Your task to perform on an android device: find photos in the google photos app Image 0: 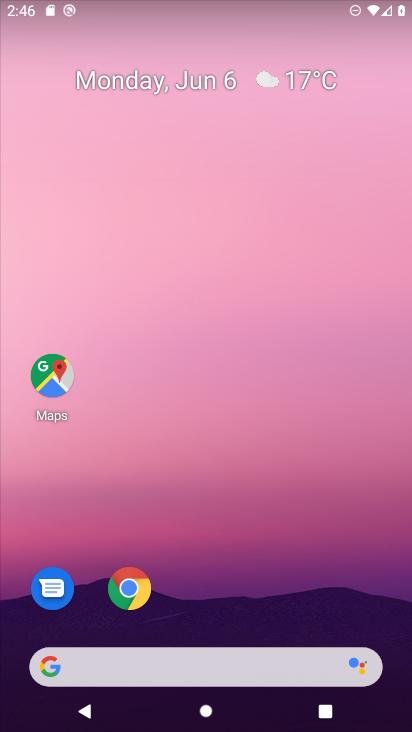
Step 0: drag from (286, 705) to (215, 170)
Your task to perform on an android device: find photos in the google photos app Image 1: 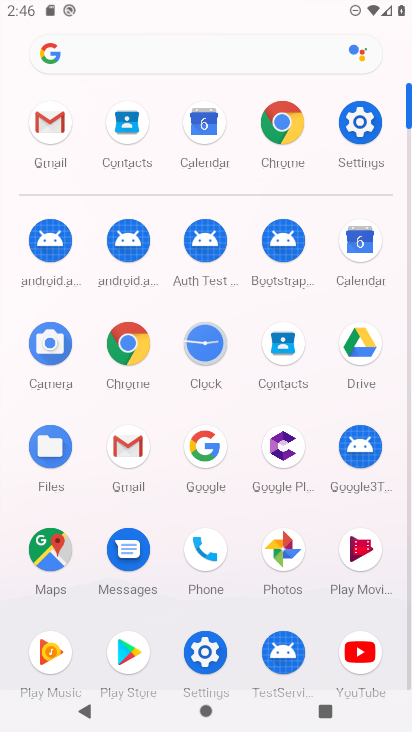
Step 1: click (291, 544)
Your task to perform on an android device: find photos in the google photos app Image 2: 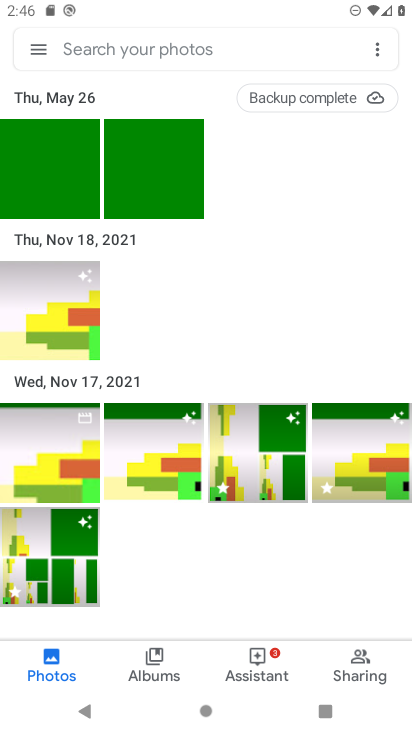
Step 2: task complete